Your task to perform on an android device: add a label to a message in the gmail app Image 0: 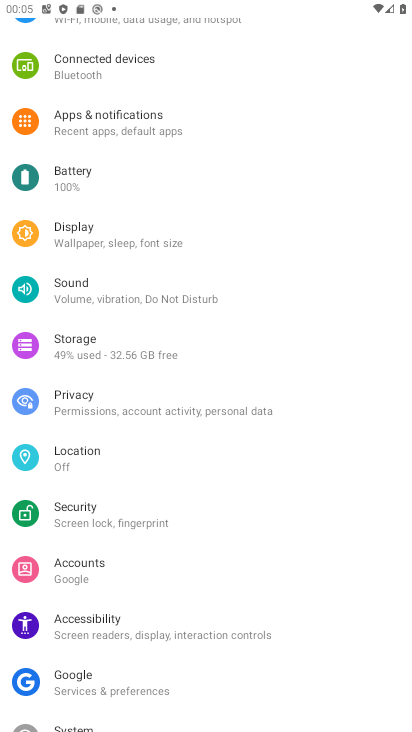
Step 0: press home button
Your task to perform on an android device: add a label to a message in the gmail app Image 1: 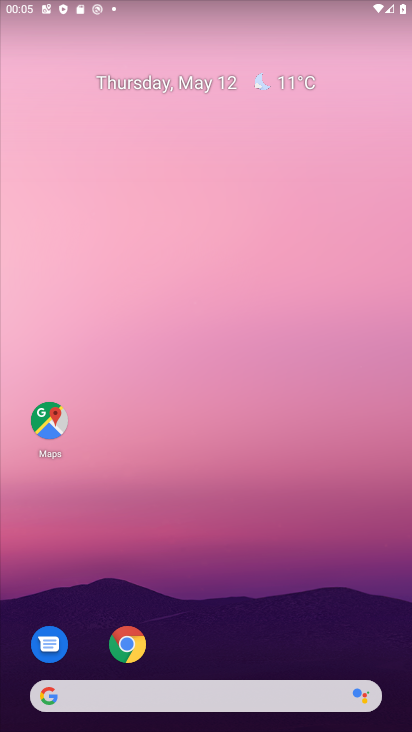
Step 1: drag from (216, 649) to (209, 71)
Your task to perform on an android device: add a label to a message in the gmail app Image 2: 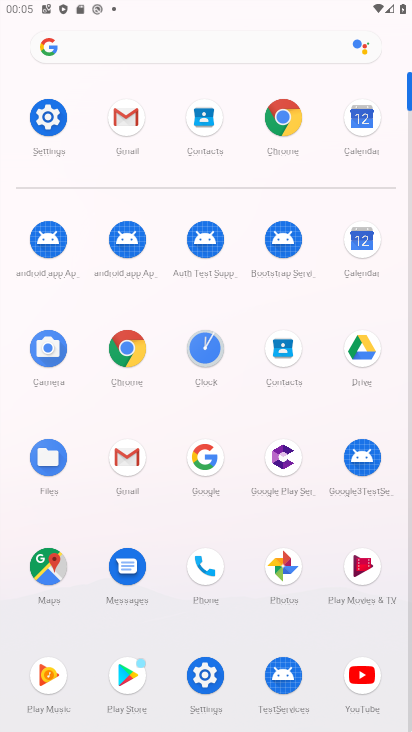
Step 2: click (125, 455)
Your task to perform on an android device: add a label to a message in the gmail app Image 3: 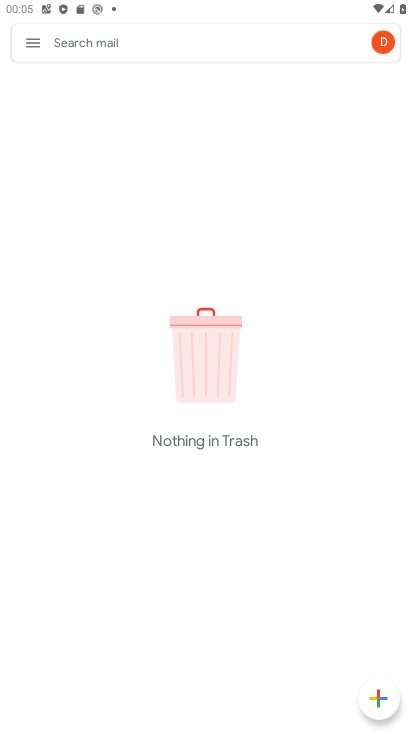
Step 3: click (29, 47)
Your task to perform on an android device: add a label to a message in the gmail app Image 4: 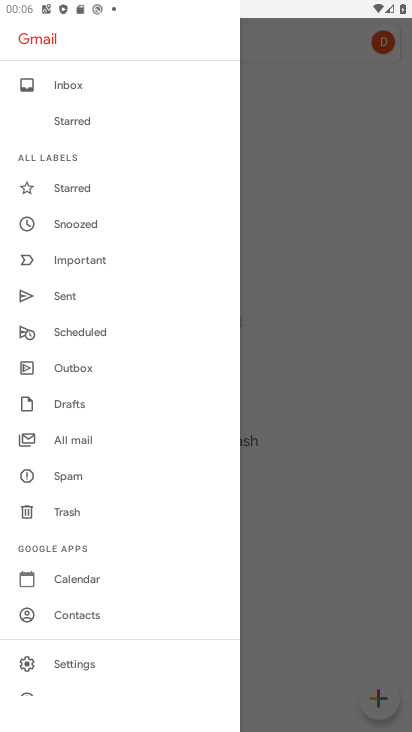
Step 4: click (87, 432)
Your task to perform on an android device: add a label to a message in the gmail app Image 5: 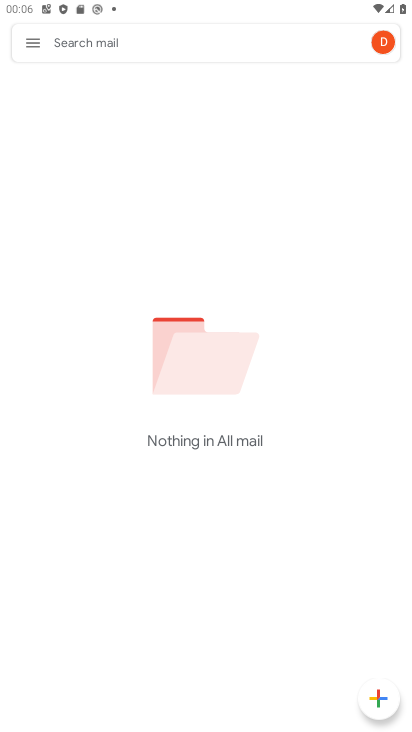
Step 5: task complete